Your task to perform on an android device: Look up the best rated Nike shoes on Nike.com Image 0: 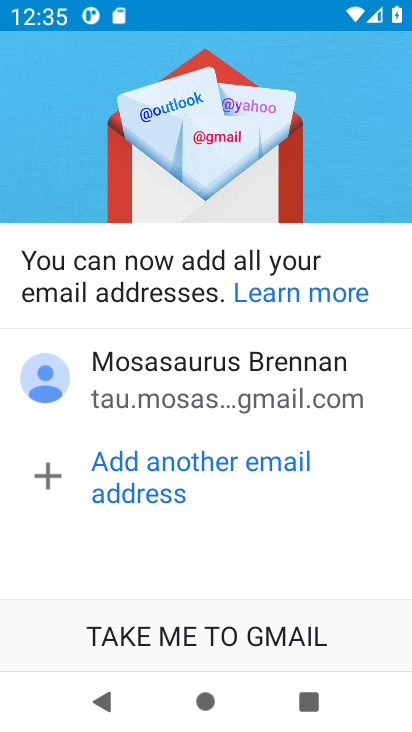
Step 0: press home button
Your task to perform on an android device: Look up the best rated Nike shoes on Nike.com Image 1: 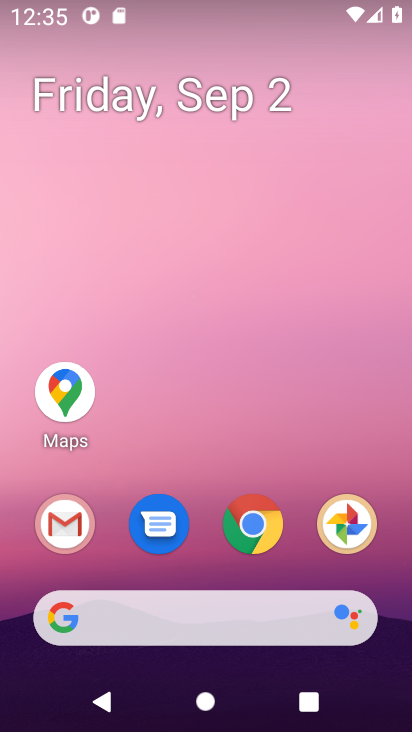
Step 1: click (290, 612)
Your task to perform on an android device: Look up the best rated Nike shoes on Nike.com Image 2: 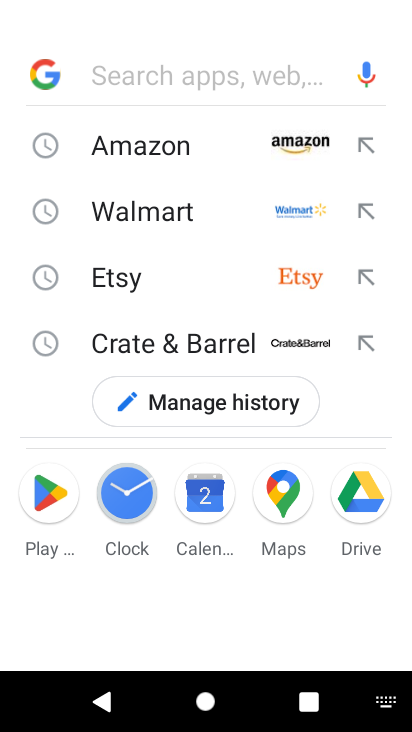
Step 2: press enter
Your task to perform on an android device: Look up the best rated Nike shoes on Nike.com Image 3: 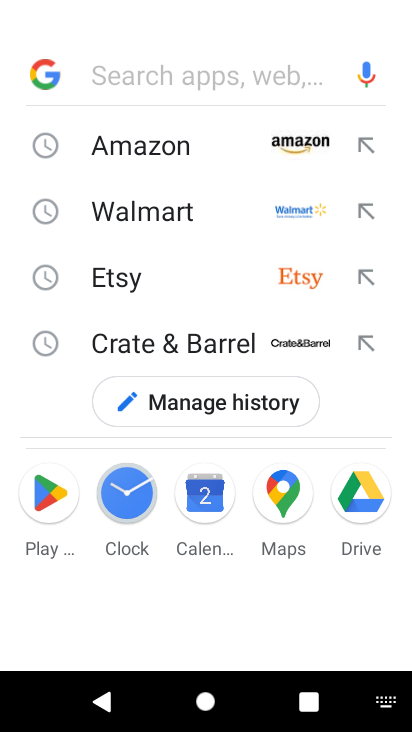
Step 3: type "nike.com"
Your task to perform on an android device: Look up the best rated Nike shoes on Nike.com Image 4: 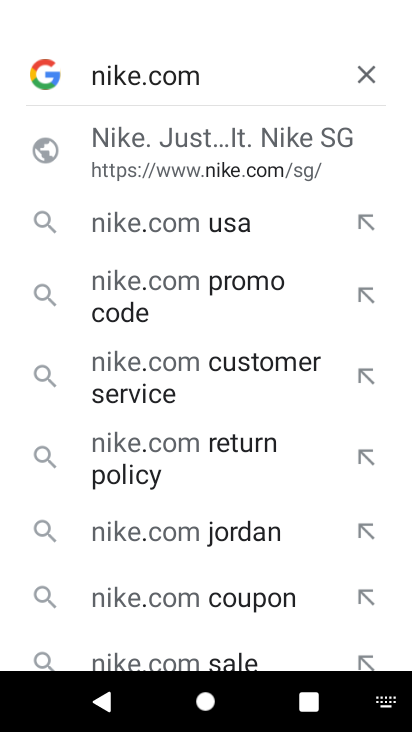
Step 4: click (271, 149)
Your task to perform on an android device: Look up the best rated Nike shoes on Nike.com Image 5: 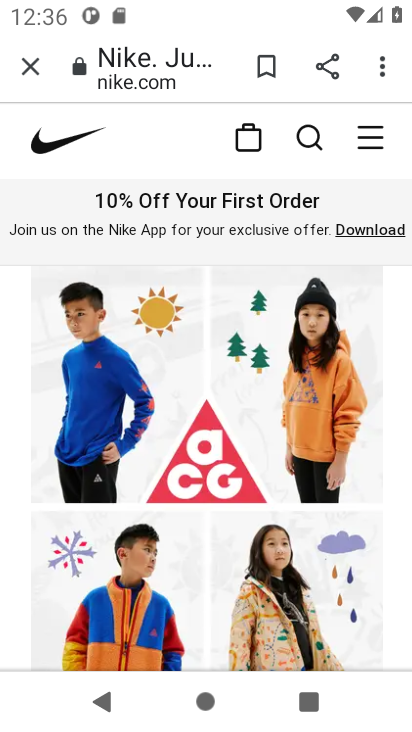
Step 5: click (303, 135)
Your task to perform on an android device: Look up the best rated Nike shoes on Nike.com Image 6: 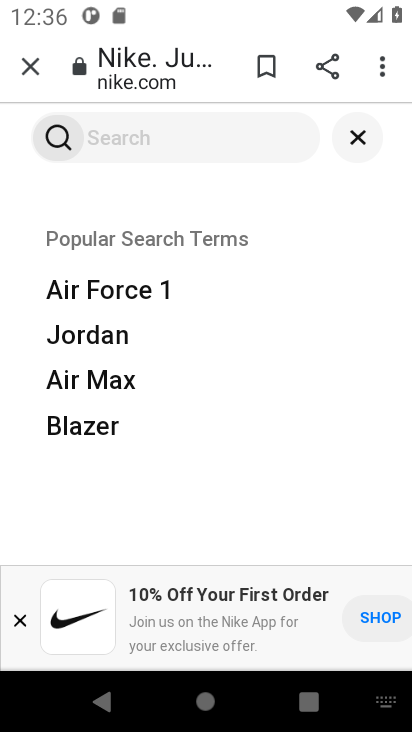
Step 6: press enter
Your task to perform on an android device: Look up the best rated Nike shoes on Nike.com Image 7: 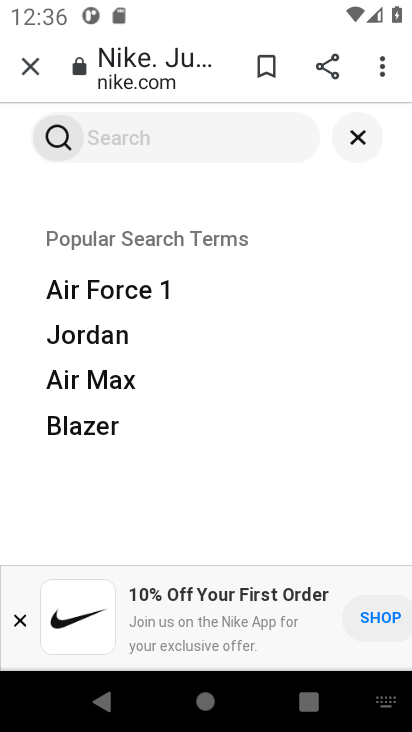
Step 7: type "best rated Nike shoes "
Your task to perform on an android device: Look up the best rated Nike shoes on Nike.com Image 8: 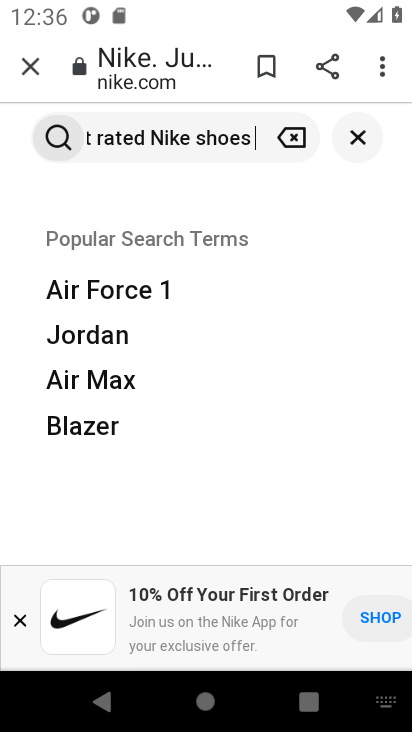
Step 8: click (56, 139)
Your task to perform on an android device: Look up the best rated Nike shoes on Nike.com Image 9: 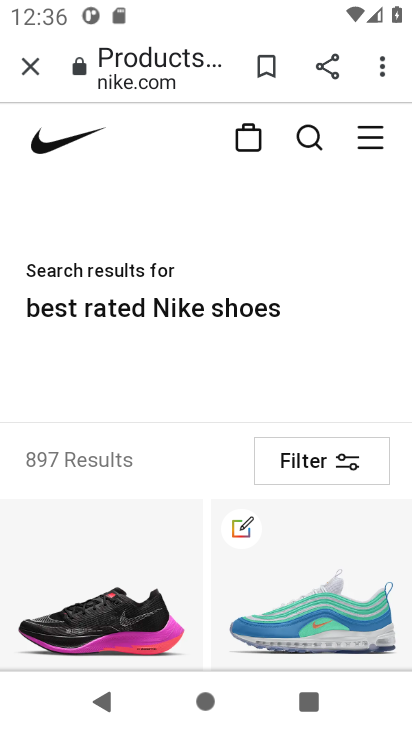
Step 9: task complete